Your task to perform on an android device: set an alarm Image 0: 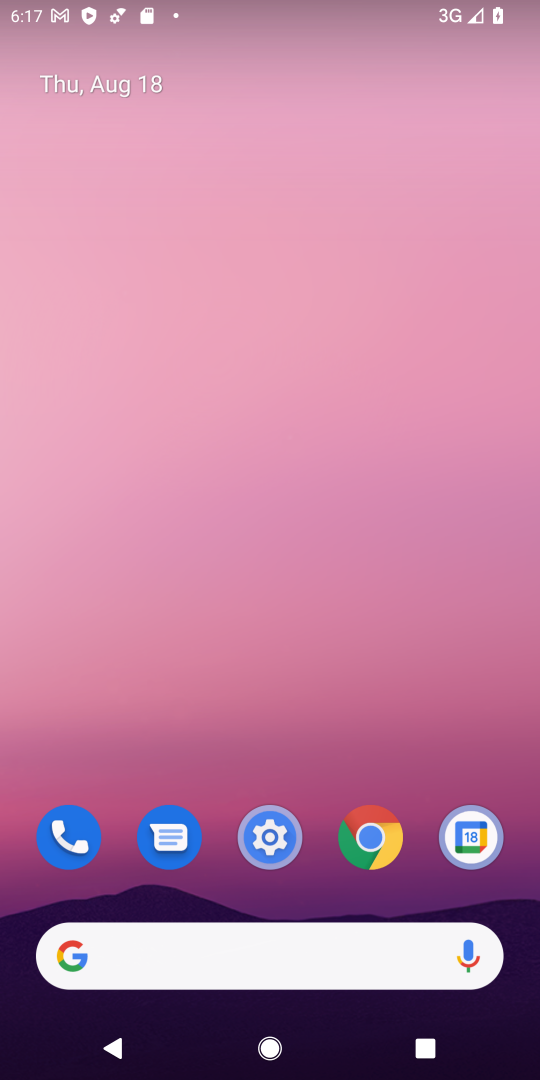
Step 0: press home button
Your task to perform on an android device: set an alarm Image 1: 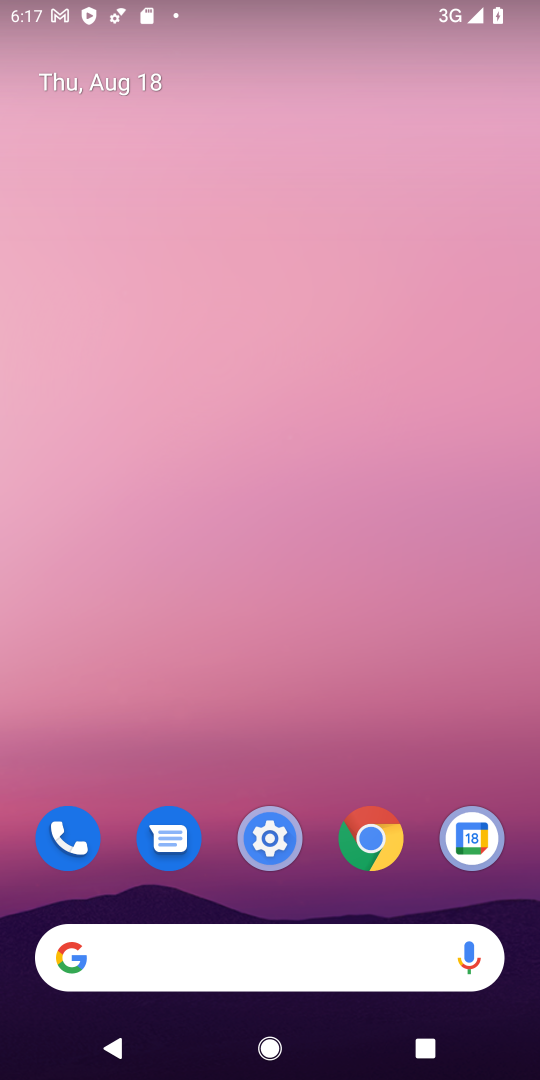
Step 1: drag from (329, 869) to (383, 310)
Your task to perform on an android device: set an alarm Image 2: 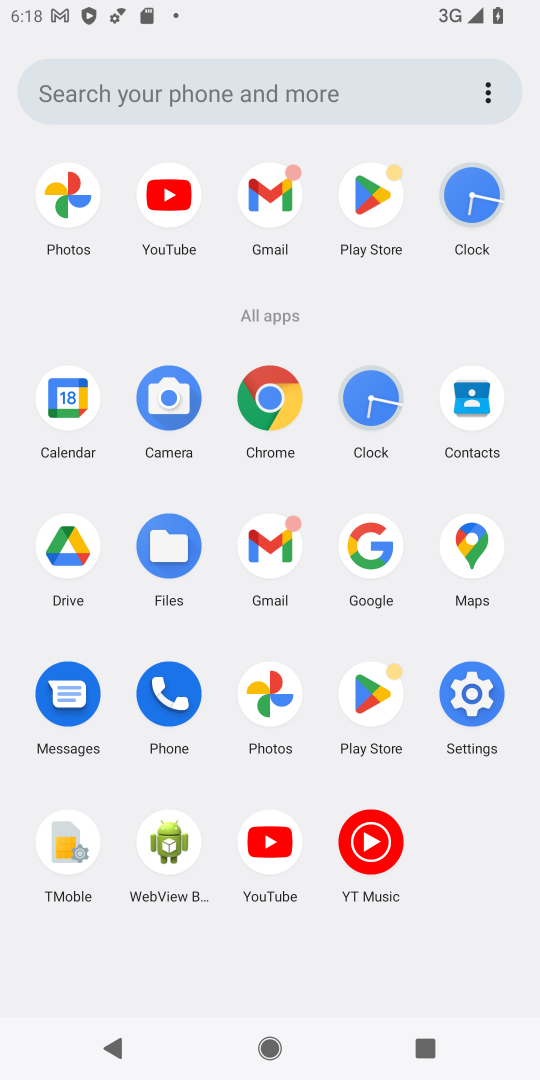
Step 2: click (468, 193)
Your task to perform on an android device: set an alarm Image 3: 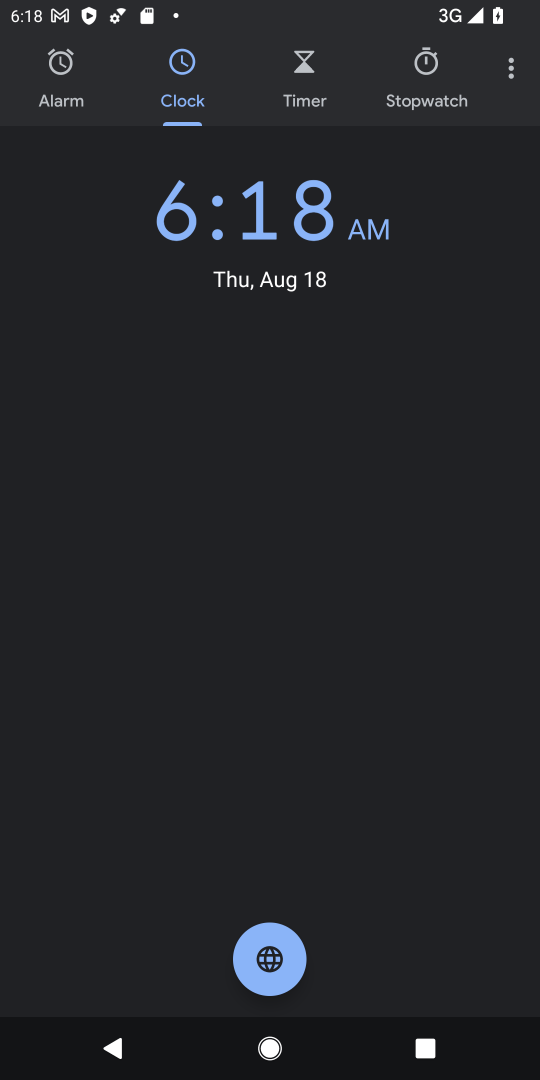
Step 3: click (64, 80)
Your task to perform on an android device: set an alarm Image 4: 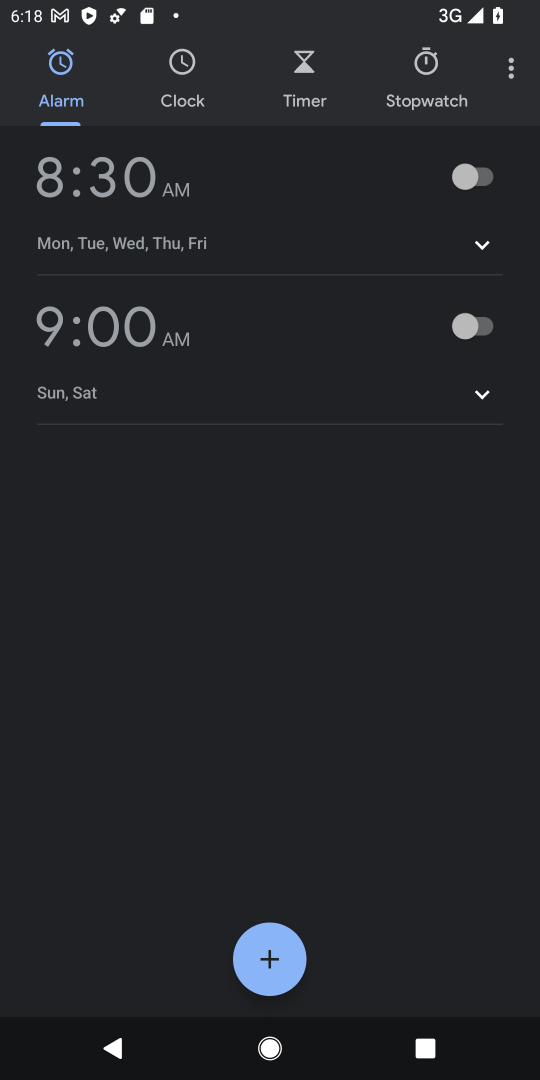
Step 4: click (477, 187)
Your task to perform on an android device: set an alarm Image 5: 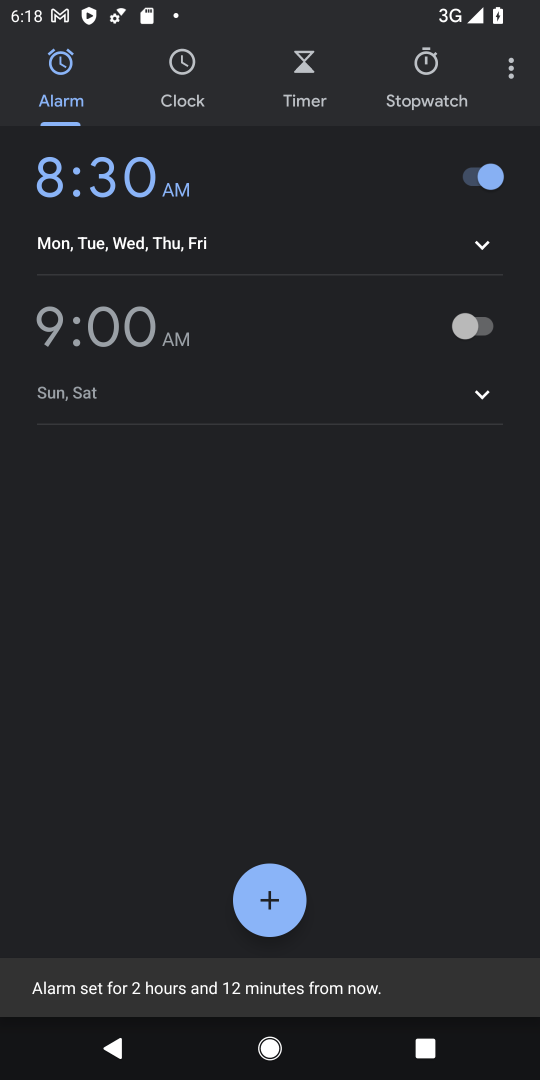
Step 5: task complete